Your task to perform on an android device: check google app version Image 0: 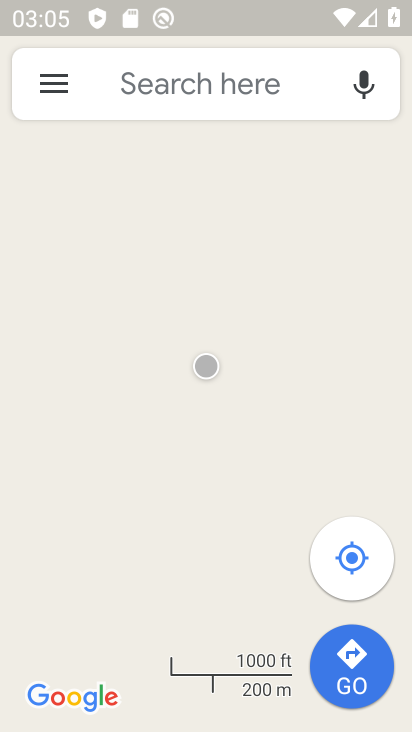
Step 0: press back button
Your task to perform on an android device: check google app version Image 1: 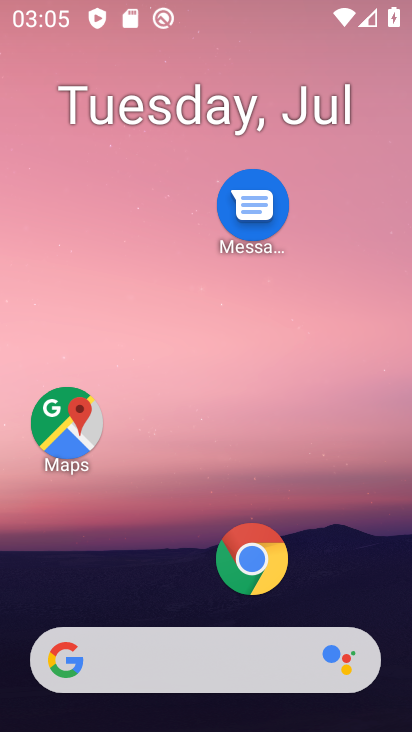
Step 1: press back button
Your task to perform on an android device: check google app version Image 2: 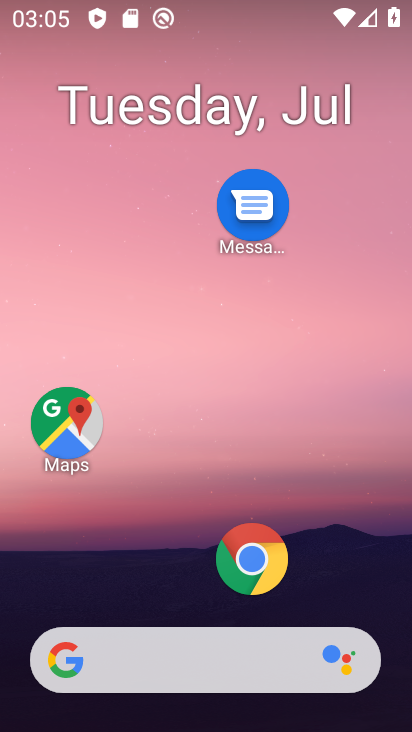
Step 2: drag from (175, 307) to (233, 46)
Your task to perform on an android device: check google app version Image 3: 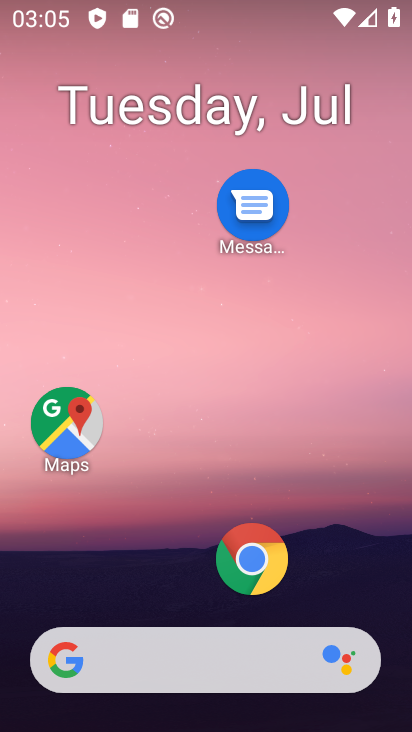
Step 3: drag from (155, 456) to (207, 18)
Your task to perform on an android device: check google app version Image 4: 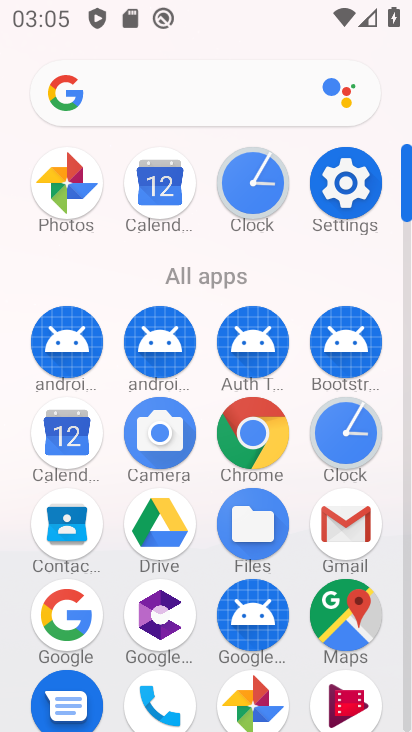
Step 4: click (80, 623)
Your task to perform on an android device: check google app version Image 5: 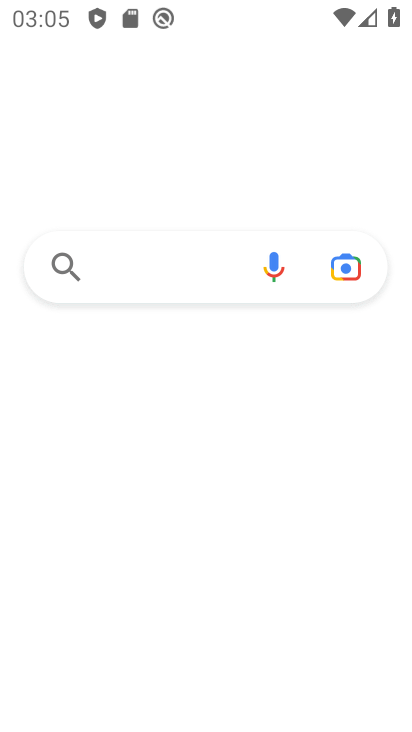
Step 5: press back button
Your task to perform on an android device: check google app version Image 6: 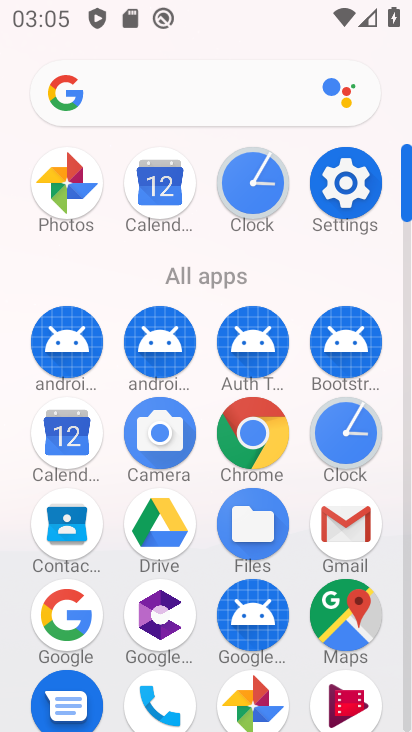
Step 6: click (77, 620)
Your task to perform on an android device: check google app version Image 7: 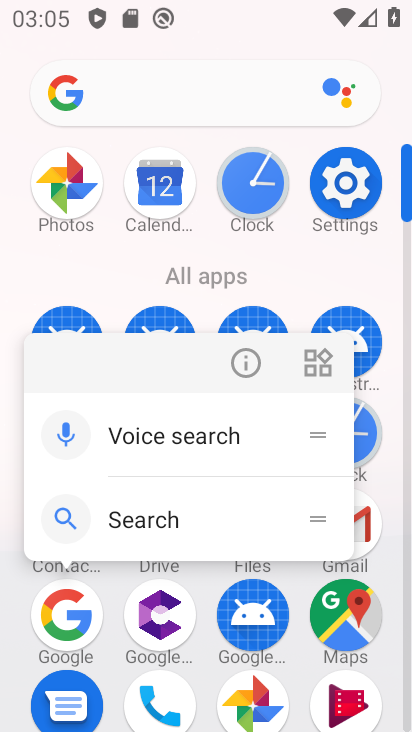
Step 7: click (237, 367)
Your task to perform on an android device: check google app version Image 8: 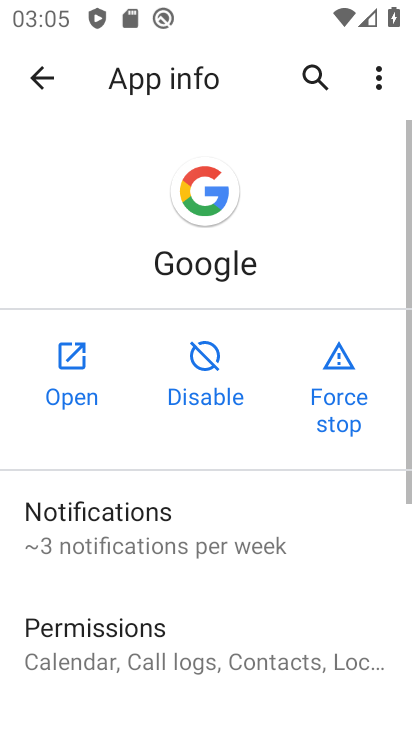
Step 8: drag from (112, 594) to (175, 23)
Your task to perform on an android device: check google app version Image 9: 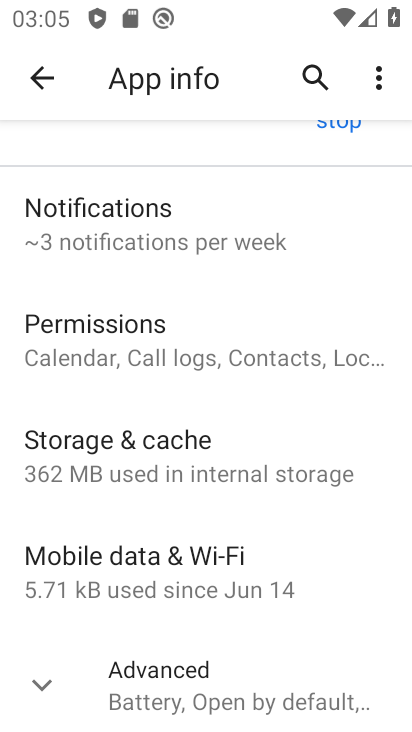
Step 9: click (147, 670)
Your task to perform on an android device: check google app version Image 10: 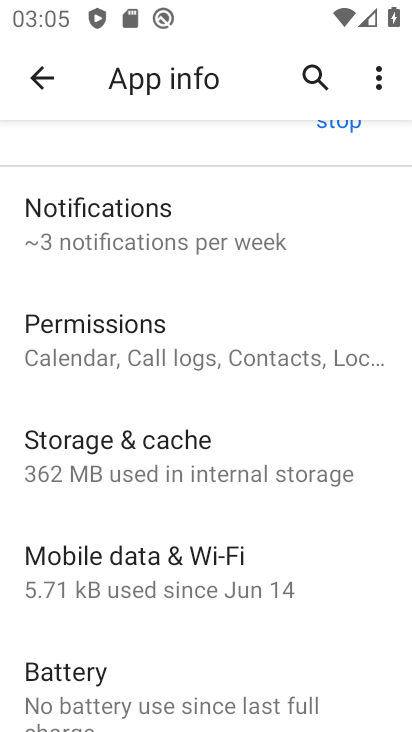
Step 10: task complete